Your task to perform on an android device: Open Youtube and go to "Your channel" Image 0: 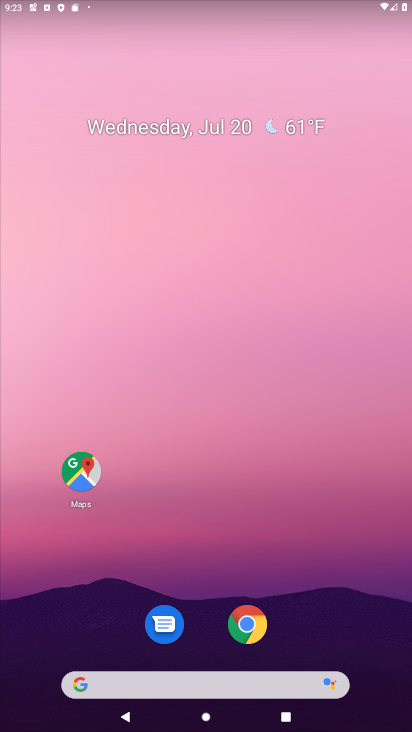
Step 0: drag from (202, 594) to (180, 234)
Your task to perform on an android device: Open Youtube and go to "Your channel" Image 1: 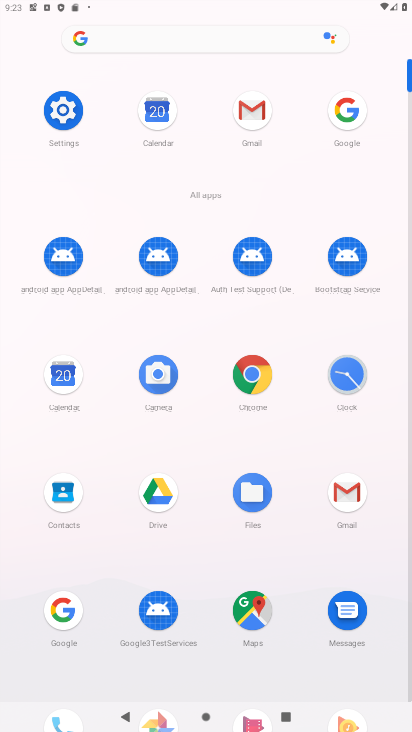
Step 1: drag from (311, 665) to (322, 237)
Your task to perform on an android device: Open Youtube and go to "Your channel" Image 2: 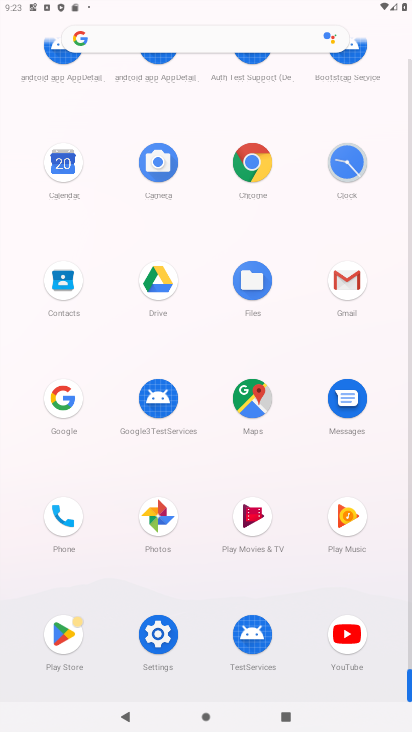
Step 2: click (361, 640)
Your task to perform on an android device: Open Youtube and go to "Your channel" Image 3: 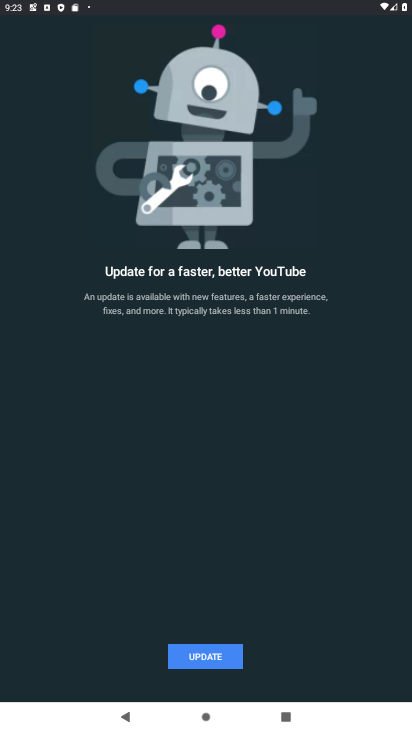
Step 3: click (229, 651)
Your task to perform on an android device: Open Youtube and go to "Your channel" Image 4: 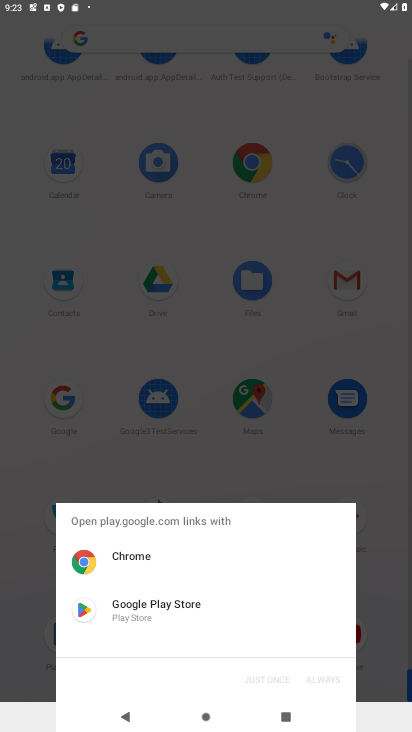
Step 4: click (197, 604)
Your task to perform on an android device: Open Youtube and go to "Your channel" Image 5: 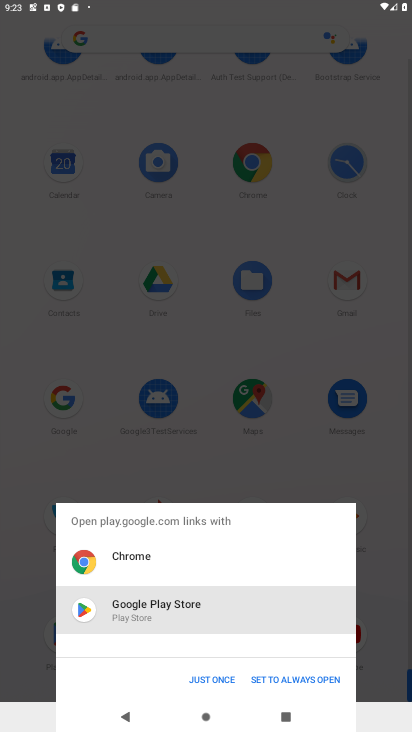
Step 5: click (291, 668)
Your task to perform on an android device: Open Youtube and go to "Your channel" Image 6: 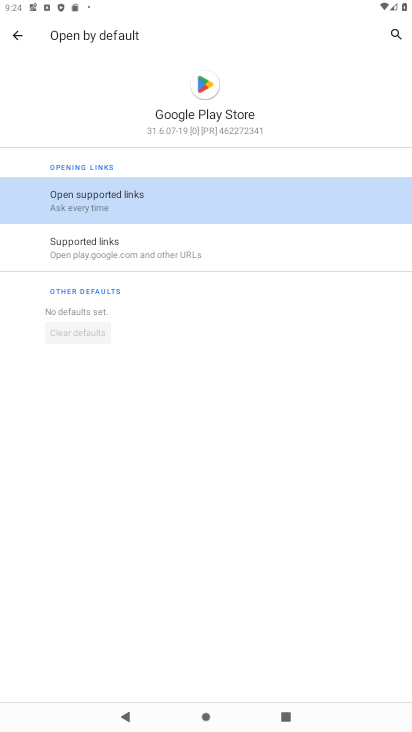
Step 6: click (25, 29)
Your task to perform on an android device: Open Youtube and go to "Your channel" Image 7: 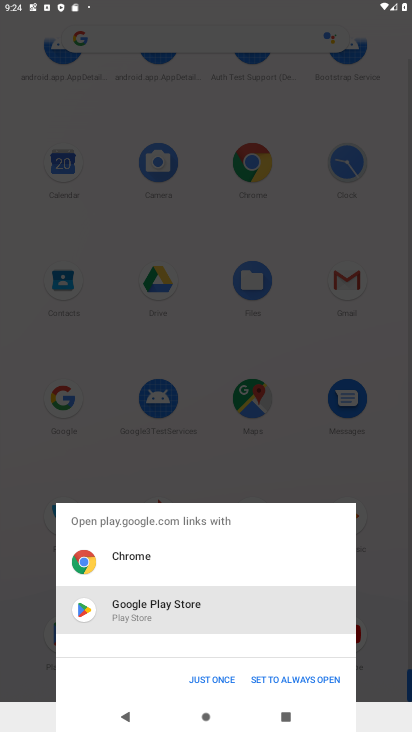
Step 7: click (209, 682)
Your task to perform on an android device: Open Youtube and go to "Your channel" Image 8: 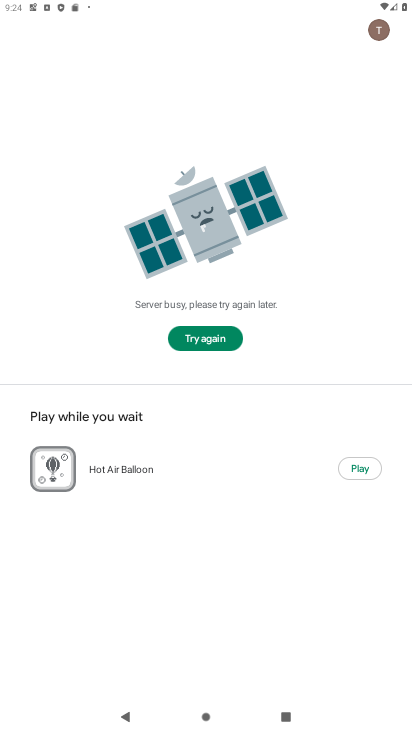
Step 8: task complete